Your task to perform on an android device: Open Google Chrome Image 0: 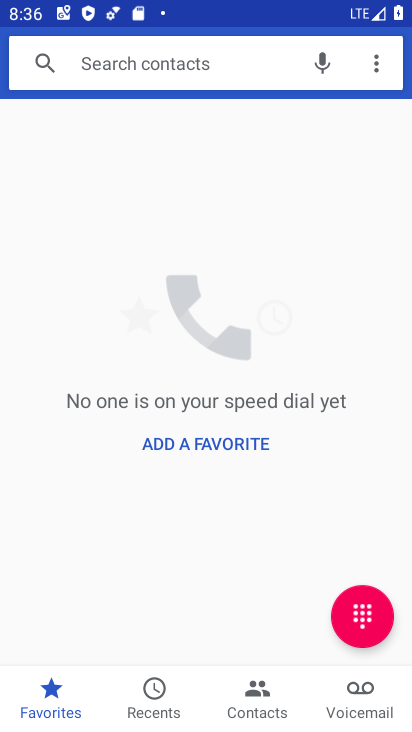
Step 0: press home button
Your task to perform on an android device: Open Google Chrome Image 1: 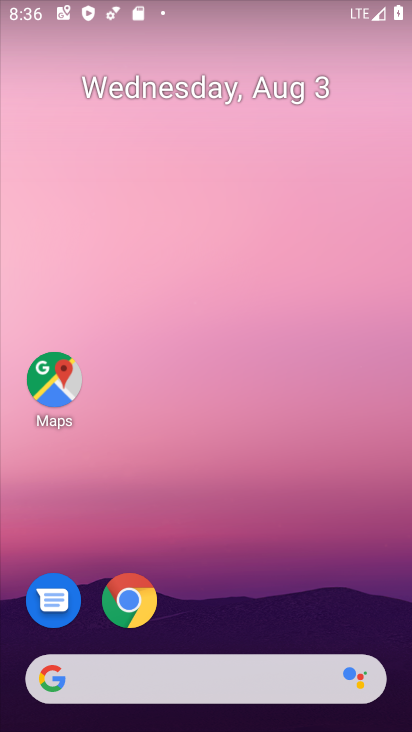
Step 1: click (111, 595)
Your task to perform on an android device: Open Google Chrome Image 2: 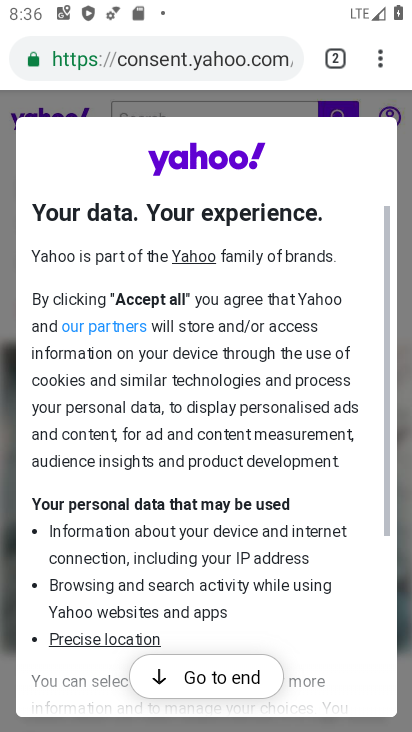
Step 2: task complete